Your task to perform on an android device: find photos in the google photos app Image 0: 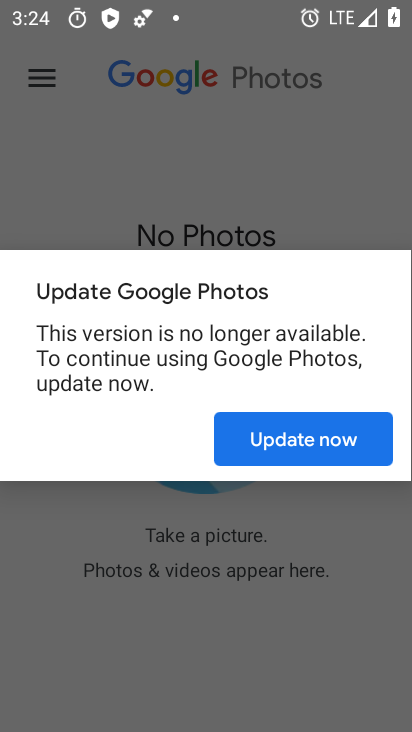
Step 0: press home button
Your task to perform on an android device: find photos in the google photos app Image 1: 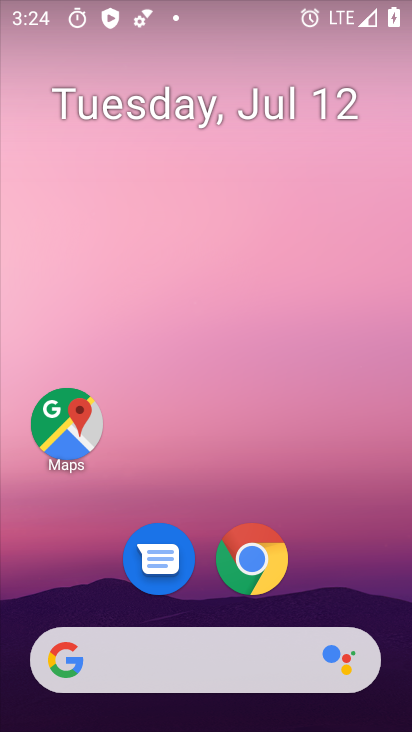
Step 1: drag from (369, 564) to (357, 206)
Your task to perform on an android device: find photos in the google photos app Image 2: 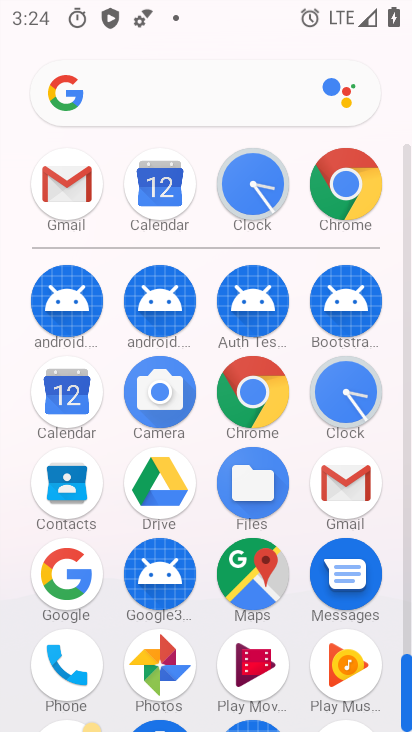
Step 2: click (163, 650)
Your task to perform on an android device: find photos in the google photos app Image 3: 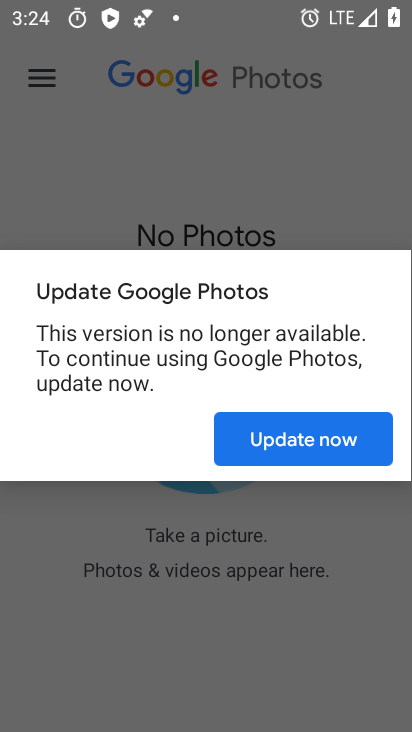
Step 3: click (335, 447)
Your task to perform on an android device: find photos in the google photos app Image 4: 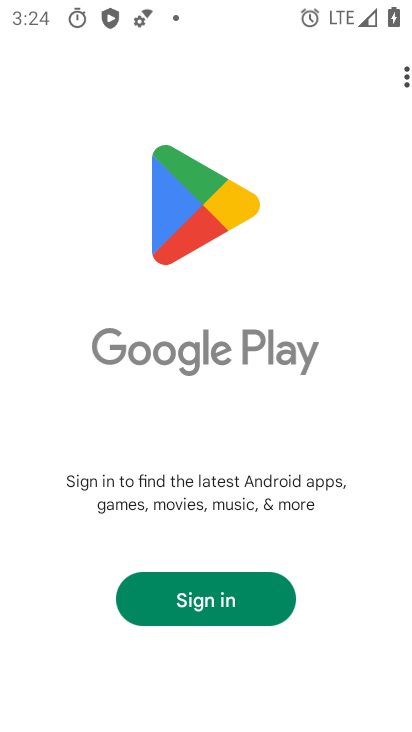
Step 4: task complete